Your task to perform on an android device: Clear all items from cart on amazon.com. Search for logitech g910 on amazon.com, select the first entry, add it to the cart, then select checkout. Image 0: 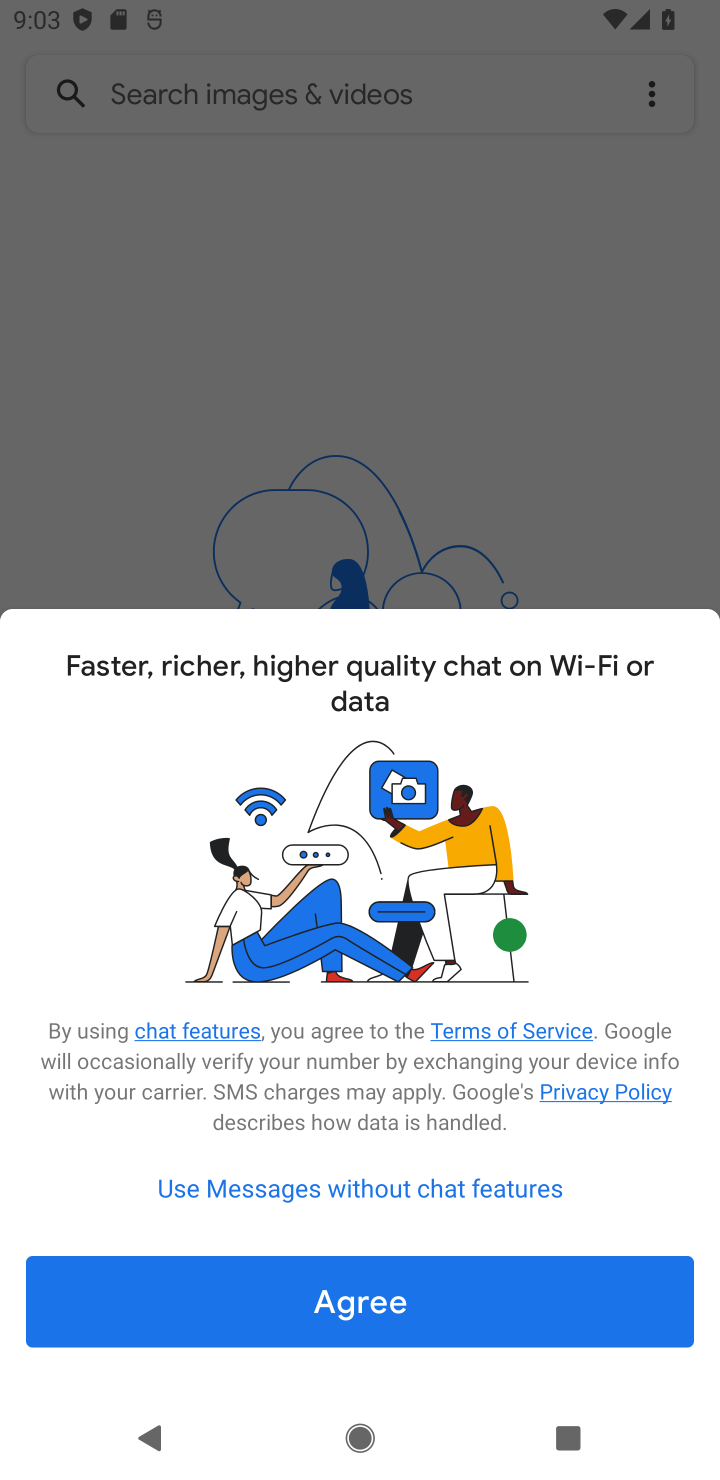
Step 0: press home button
Your task to perform on an android device: Clear all items from cart on amazon.com. Search for logitech g910 on amazon.com, select the first entry, add it to the cart, then select checkout. Image 1: 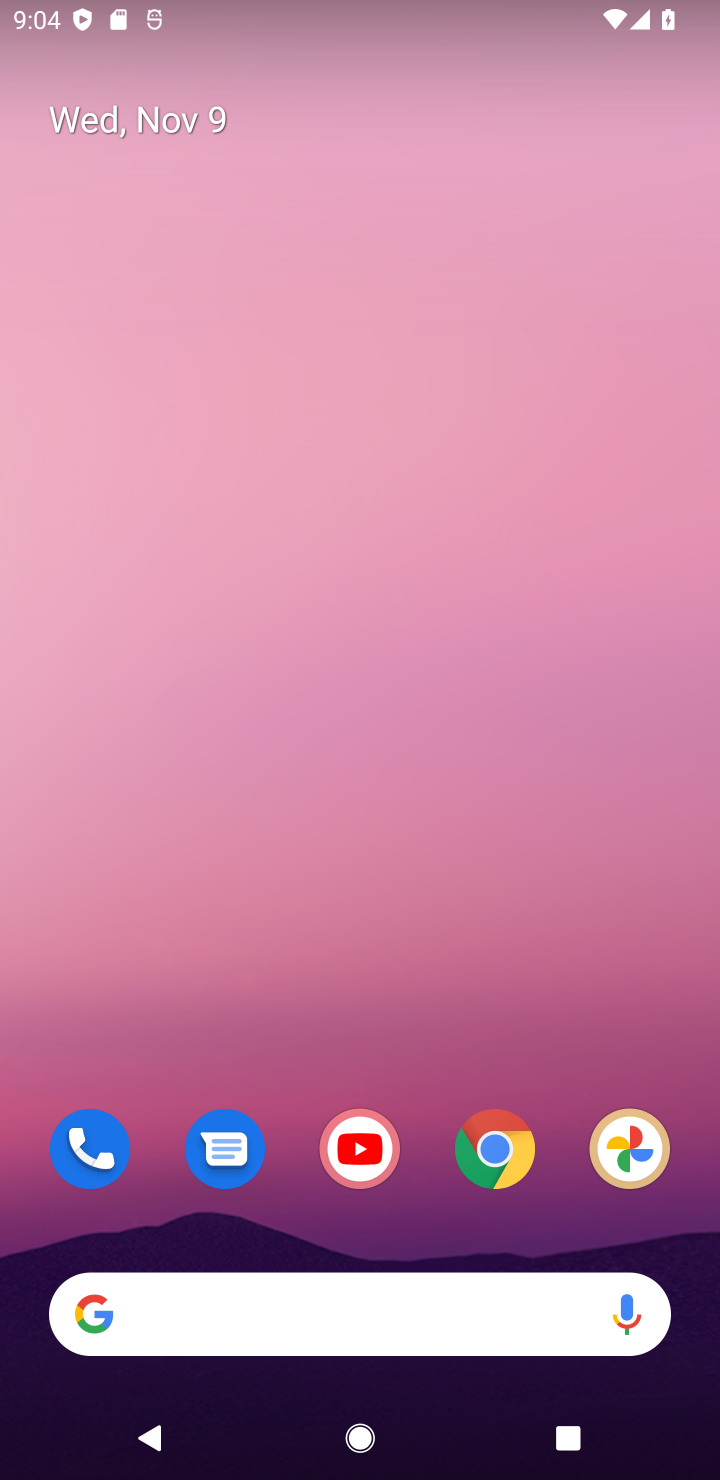
Step 1: click (491, 1165)
Your task to perform on an android device: Clear all items from cart on amazon.com. Search for logitech g910 on amazon.com, select the first entry, add it to the cart, then select checkout. Image 2: 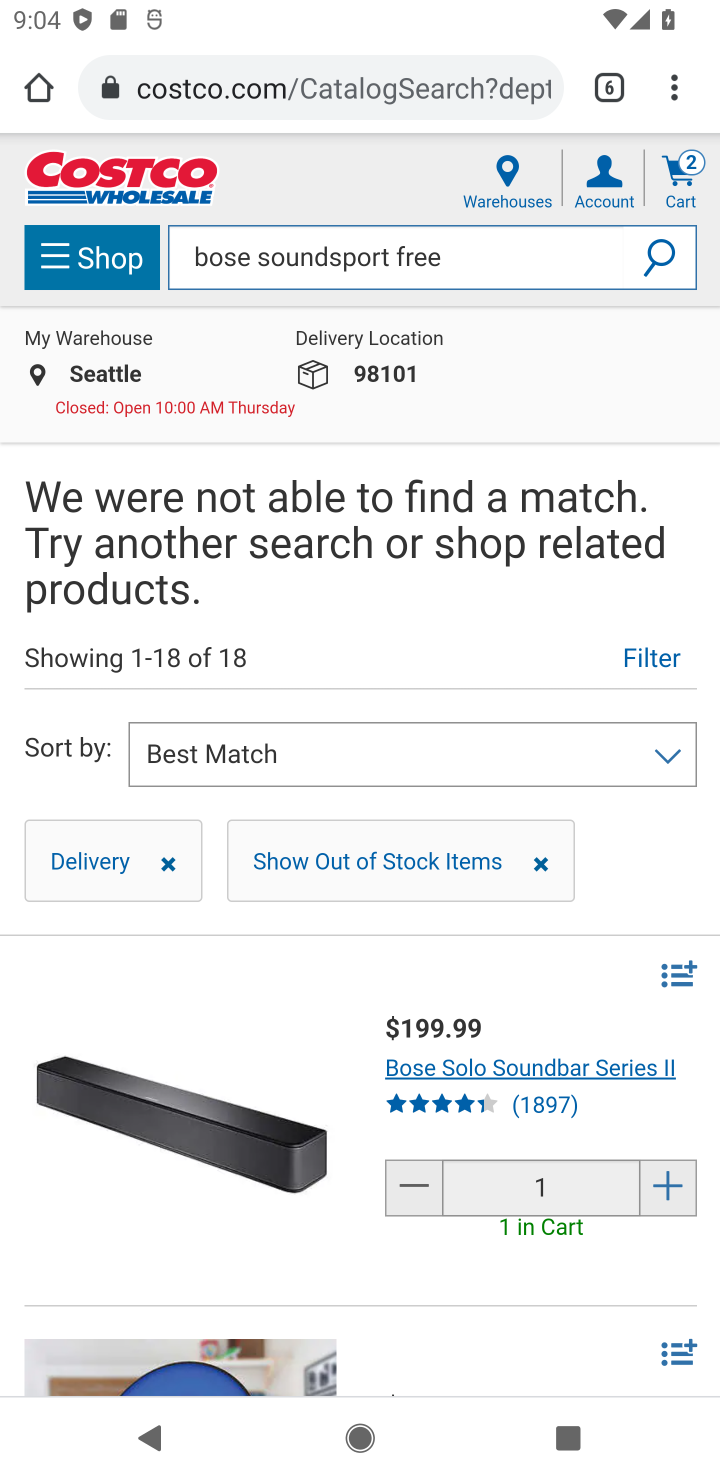
Step 2: click (612, 77)
Your task to perform on an android device: Clear all items from cart on amazon.com. Search for logitech g910 on amazon.com, select the first entry, add it to the cart, then select checkout. Image 3: 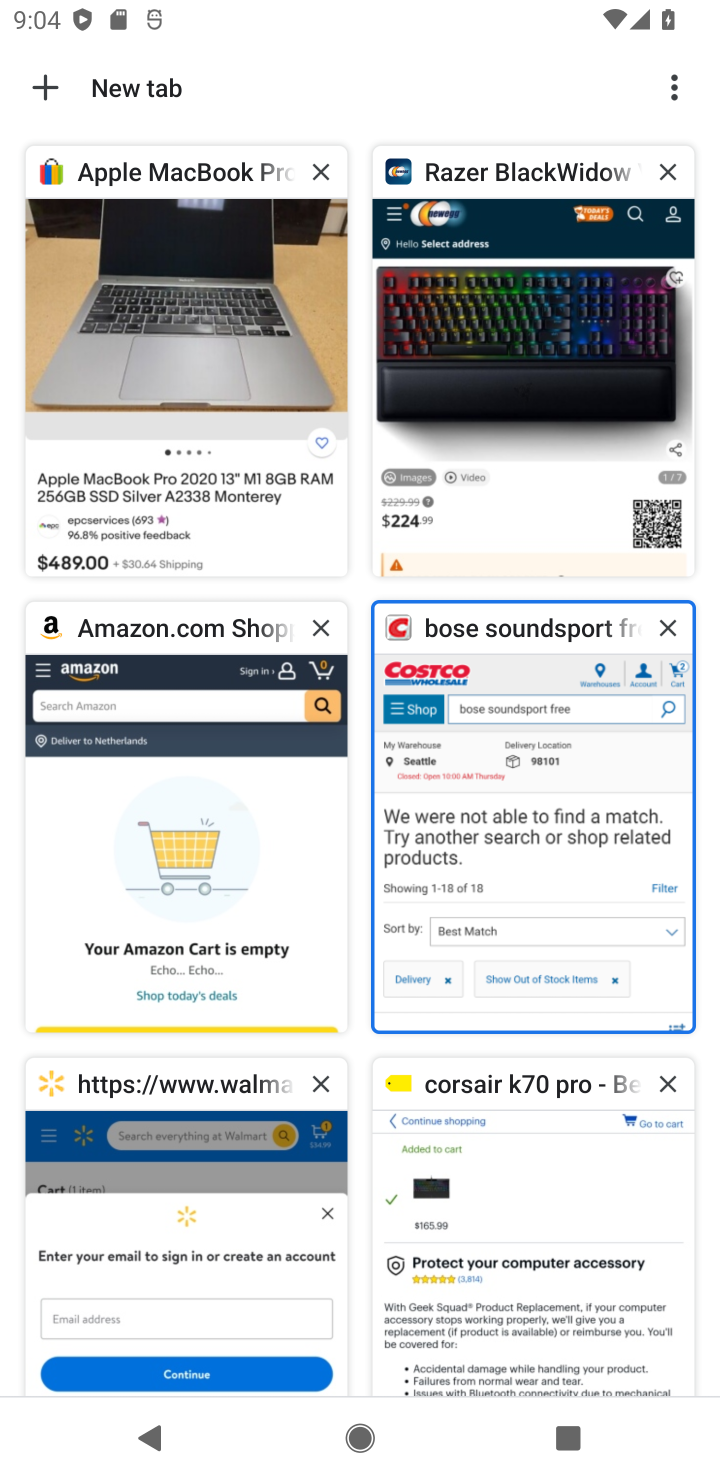
Step 3: click (99, 721)
Your task to perform on an android device: Clear all items from cart on amazon.com. Search for logitech g910 on amazon.com, select the first entry, add it to the cart, then select checkout. Image 4: 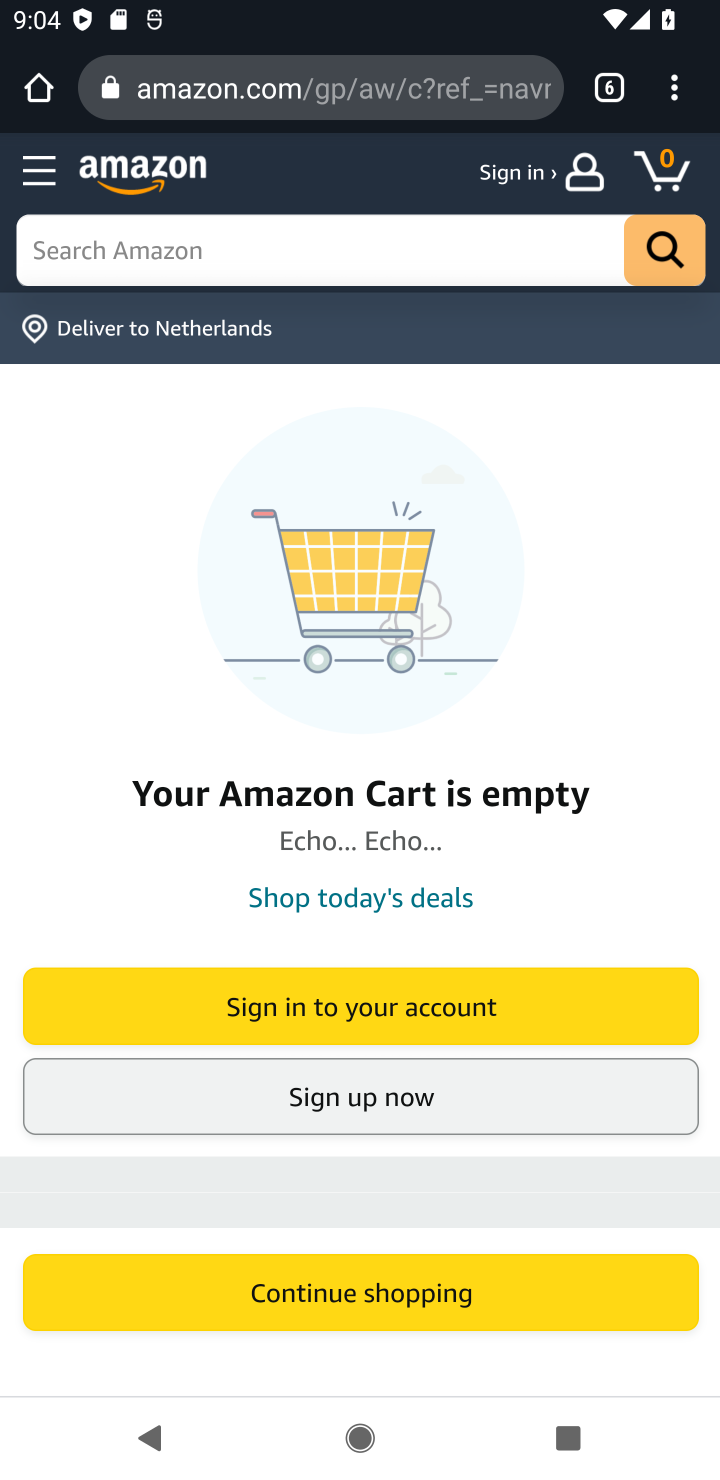
Step 4: click (153, 263)
Your task to perform on an android device: Clear all items from cart on amazon.com. Search for logitech g910 on amazon.com, select the first entry, add it to the cart, then select checkout. Image 5: 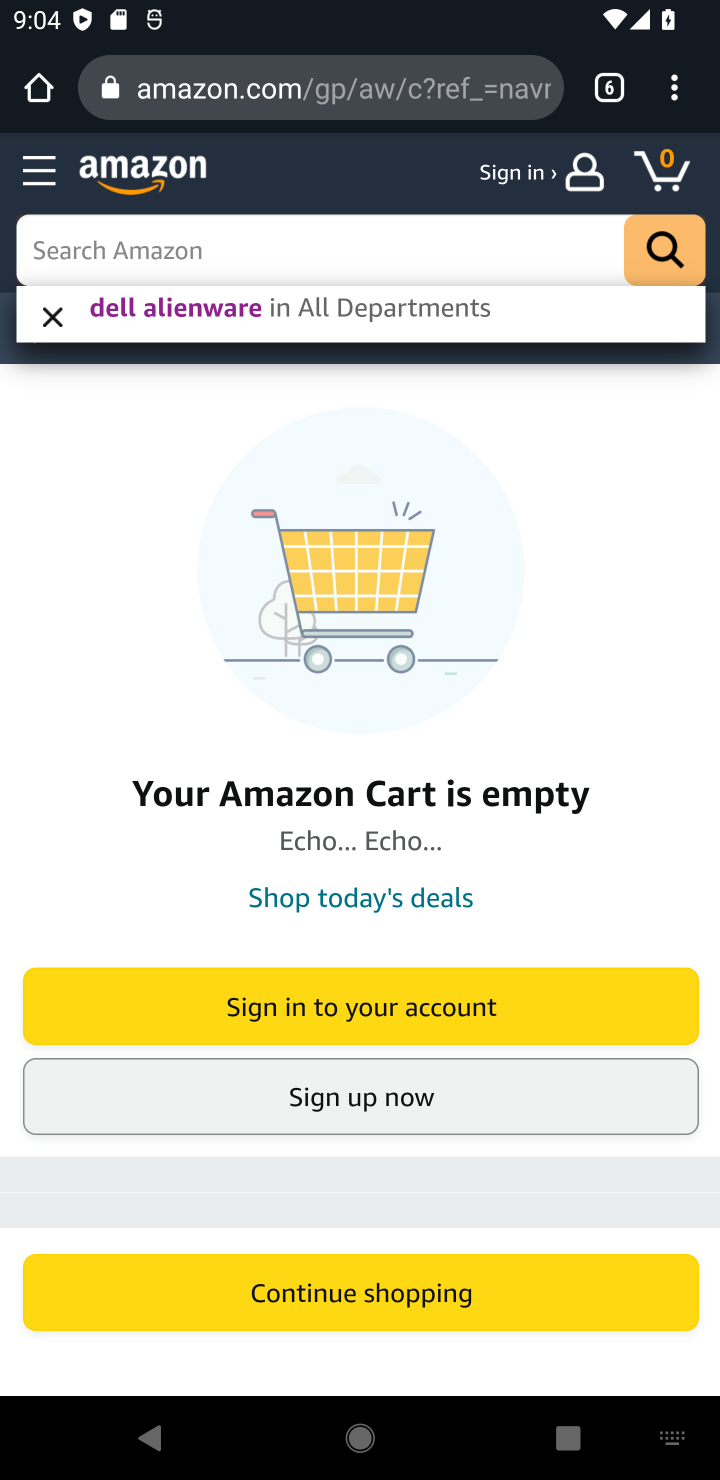
Step 5: type "logitech g910"
Your task to perform on an android device: Clear all items from cart on amazon.com. Search for logitech g910 on amazon.com, select the first entry, add it to the cart, then select checkout. Image 6: 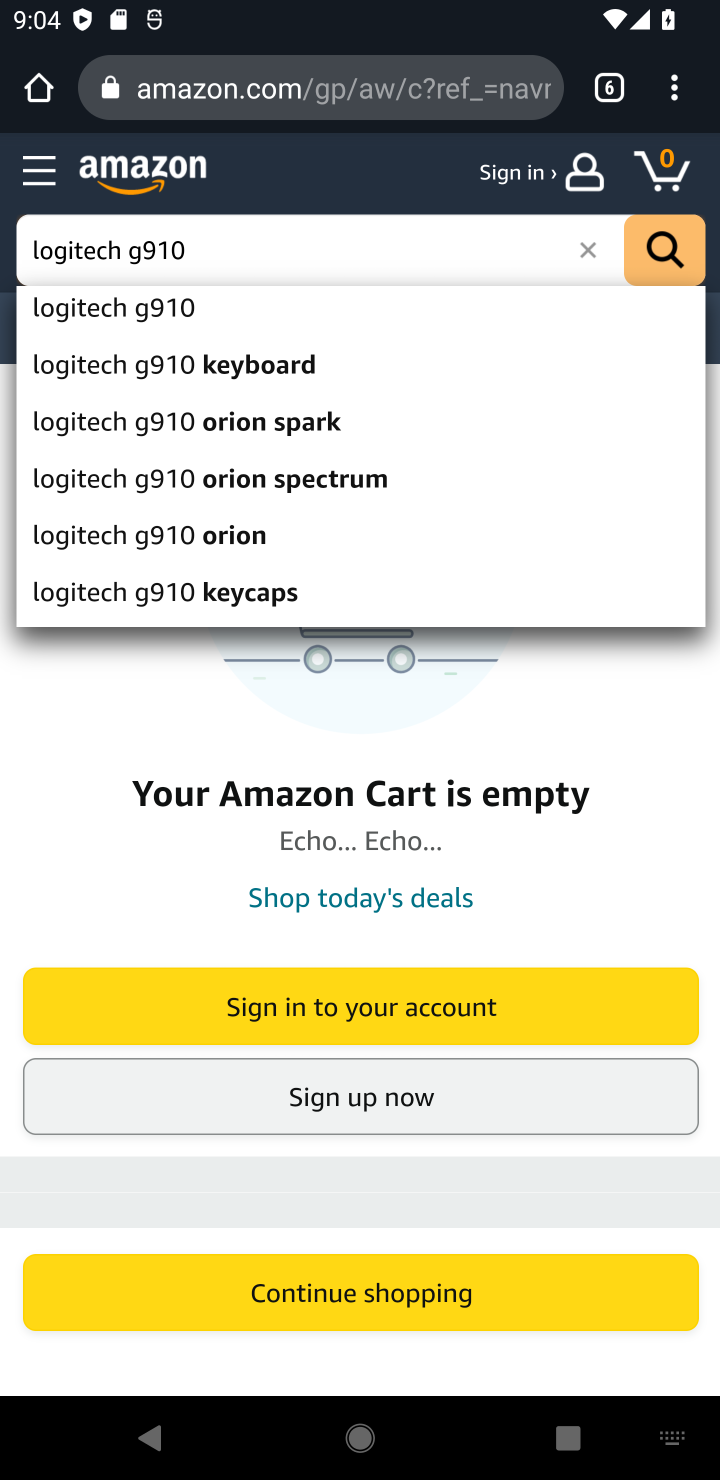
Step 6: click (150, 293)
Your task to perform on an android device: Clear all items from cart on amazon.com. Search for logitech g910 on amazon.com, select the first entry, add it to the cart, then select checkout. Image 7: 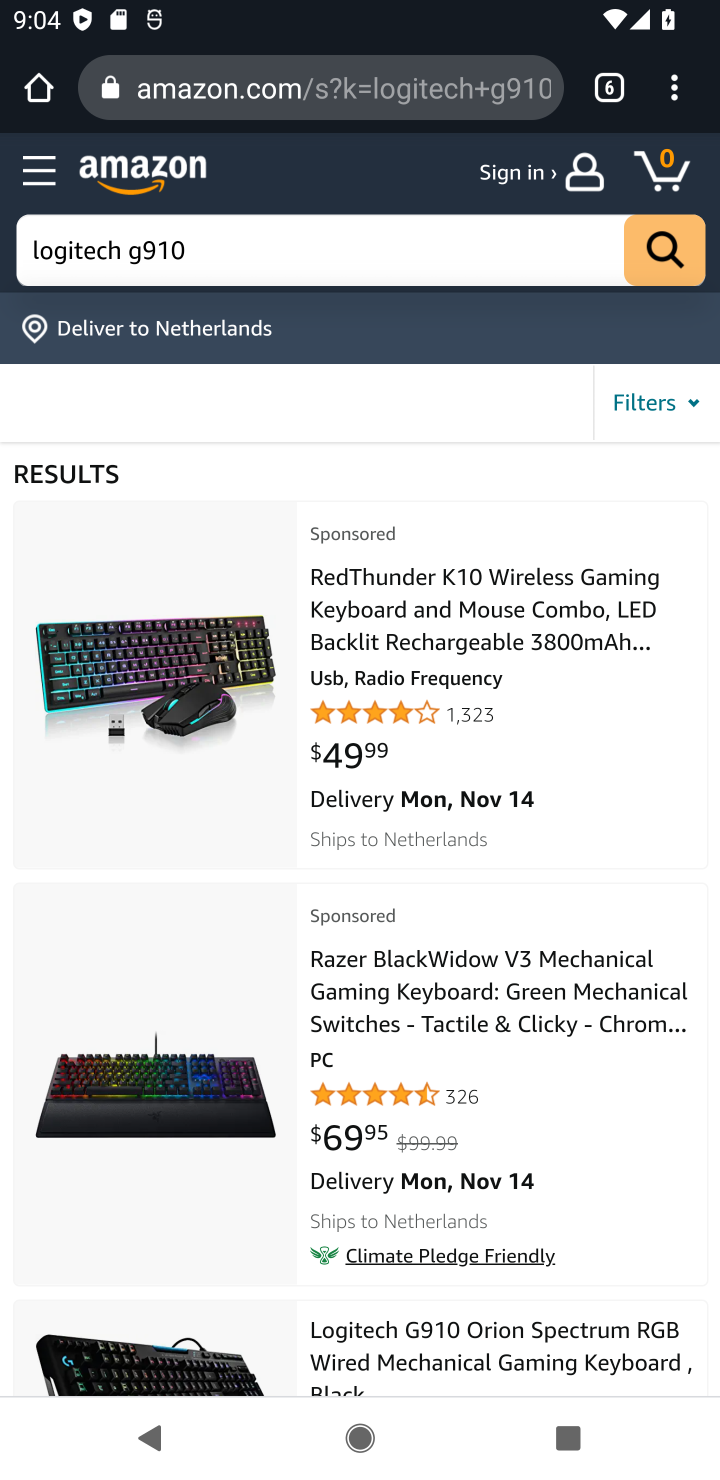
Step 7: click (449, 1353)
Your task to perform on an android device: Clear all items from cart on amazon.com. Search for logitech g910 on amazon.com, select the first entry, add it to the cart, then select checkout. Image 8: 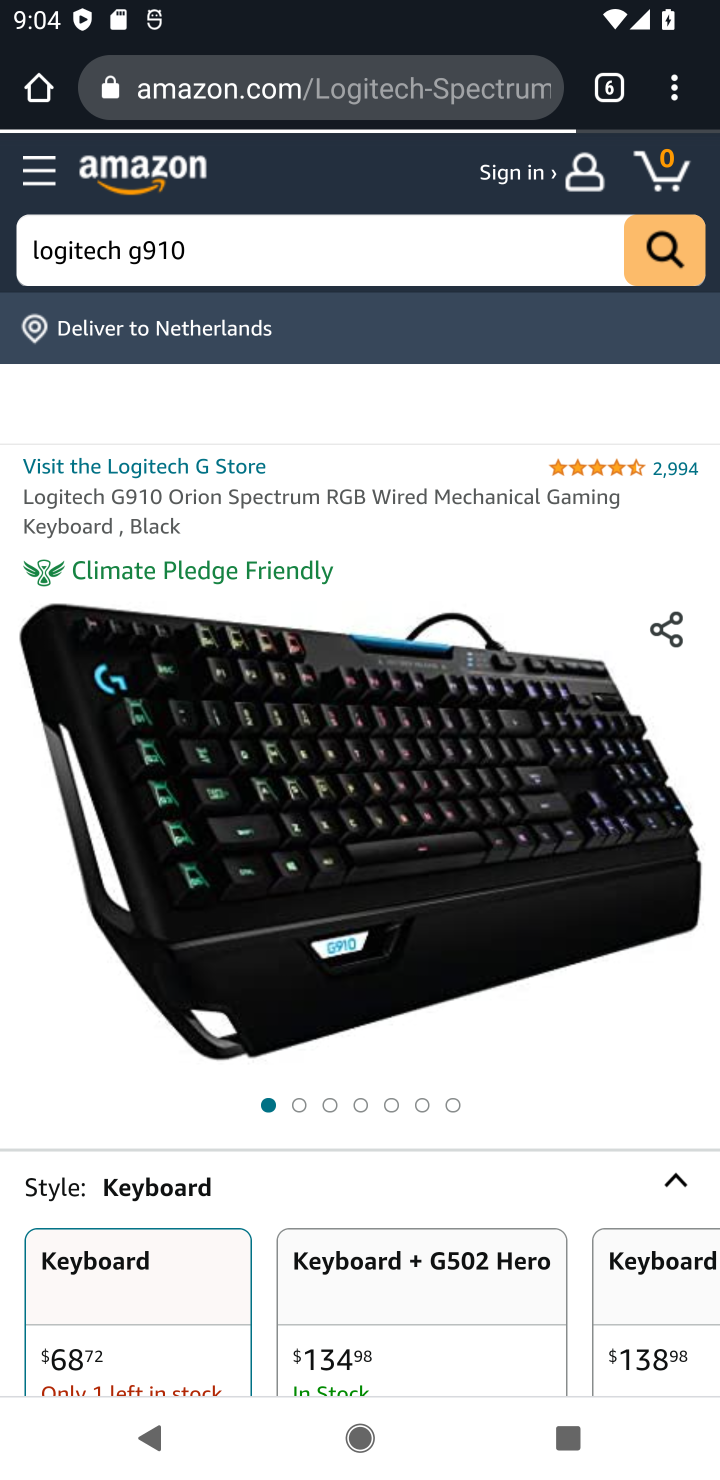
Step 8: drag from (426, 1013) to (442, 754)
Your task to perform on an android device: Clear all items from cart on amazon.com. Search for logitech g910 on amazon.com, select the first entry, add it to the cart, then select checkout. Image 9: 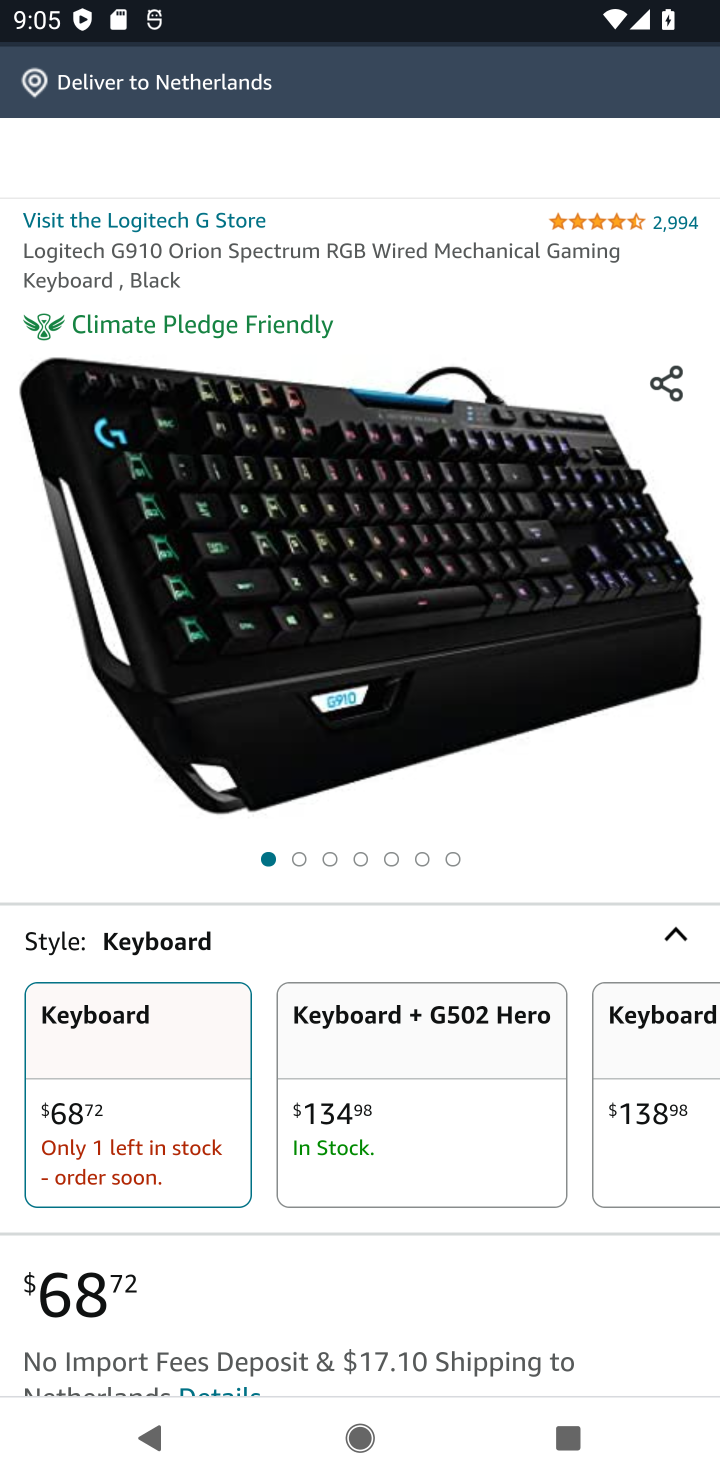
Step 9: drag from (370, 1217) to (349, 332)
Your task to perform on an android device: Clear all items from cart on amazon.com. Search for logitech g910 on amazon.com, select the first entry, add it to the cart, then select checkout. Image 10: 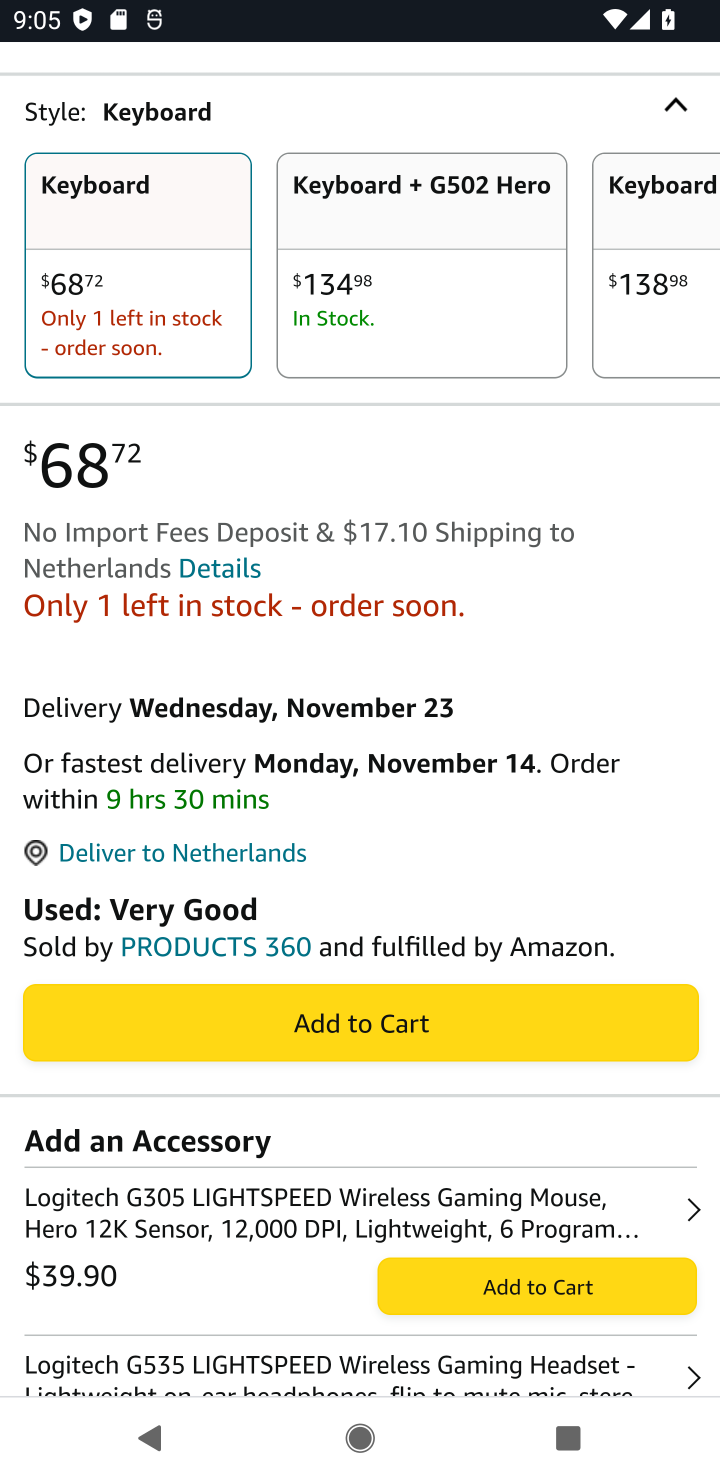
Step 10: click (461, 1056)
Your task to perform on an android device: Clear all items from cart on amazon.com. Search for logitech g910 on amazon.com, select the first entry, add it to the cart, then select checkout. Image 11: 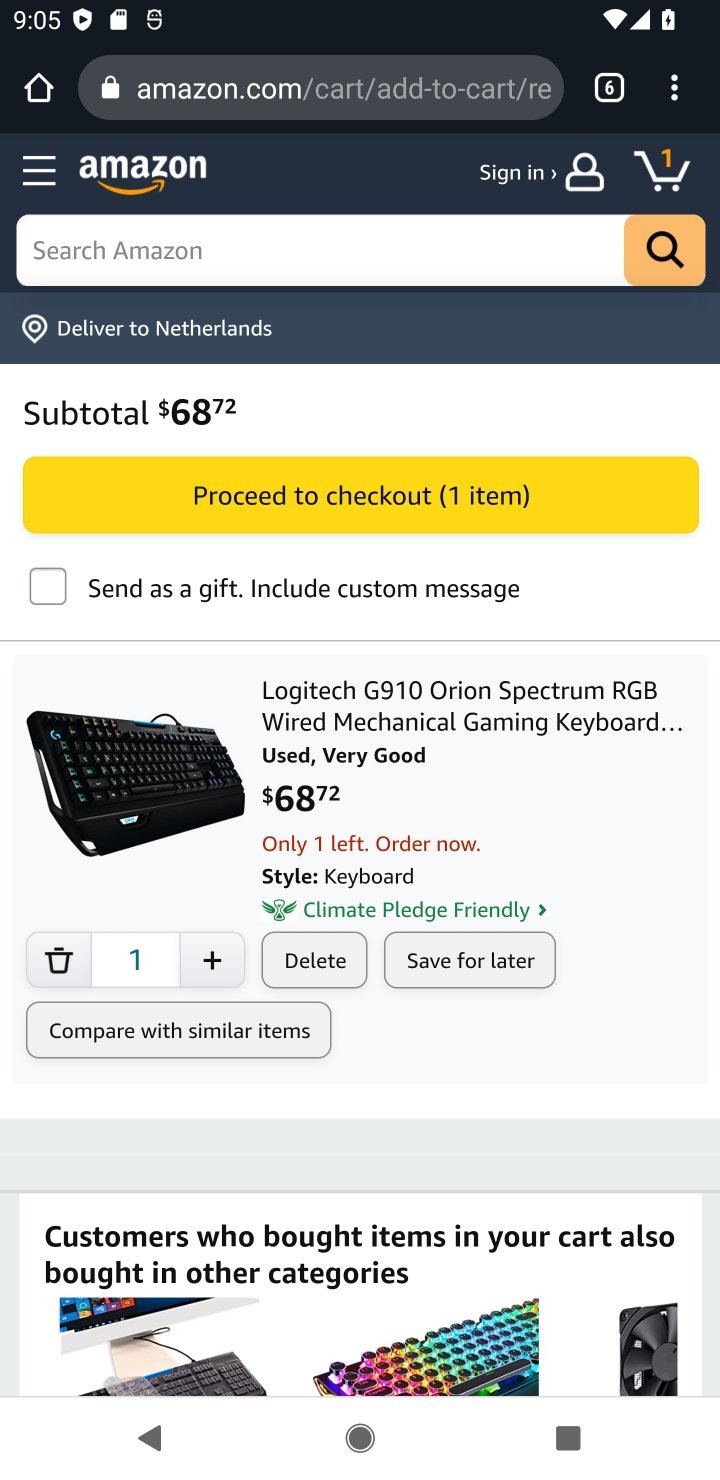
Step 11: task complete